Your task to perform on an android device: Open Yahoo.com Image 0: 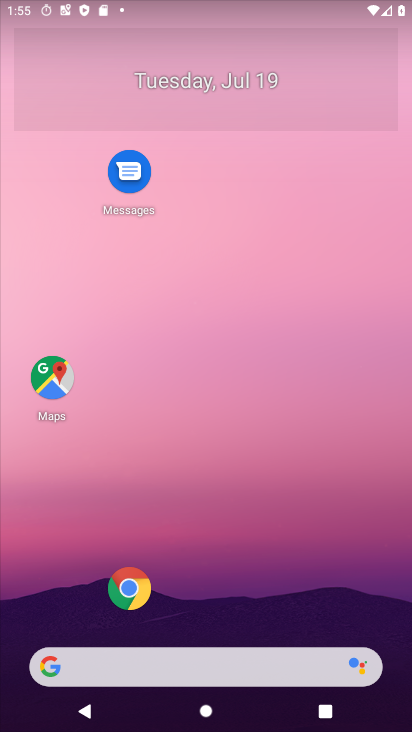
Step 0: click (156, 662)
Your task to perform on an android device: Open Yahoo.com Image 1: 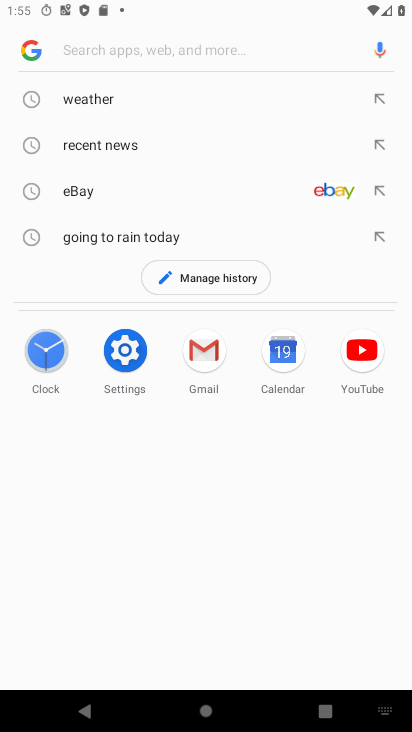
Step 1: type "Yahoo.com"
Your task to perform on an android device: Open Yahoo.com Image 2: 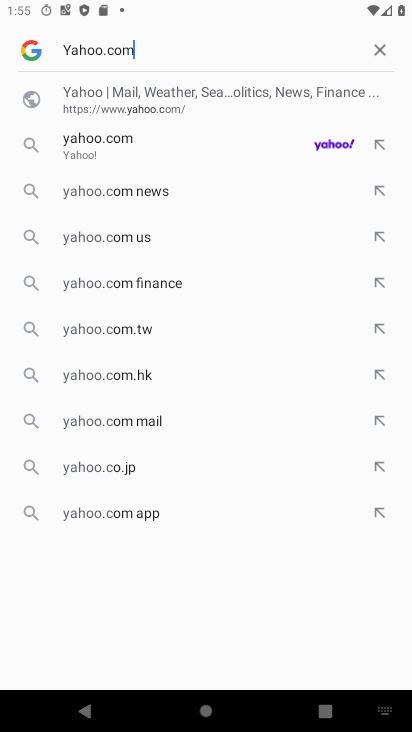
Step 2: type ""
Your task to perform on an android device: Open Yahoo.com Image 3: 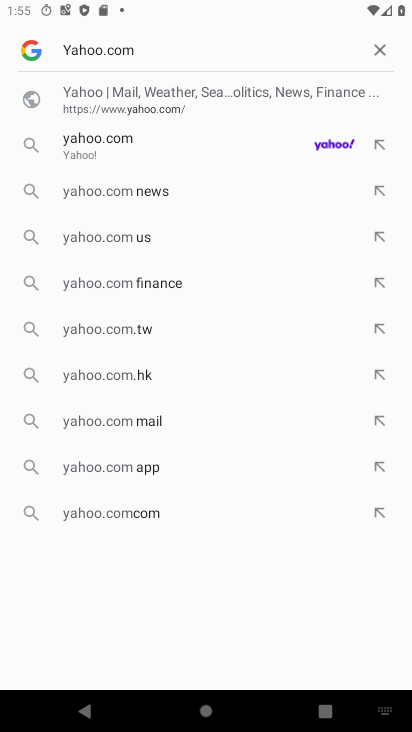
Step 3: task complete